Your task to perform on an android device: Go to sound settings Image 0: 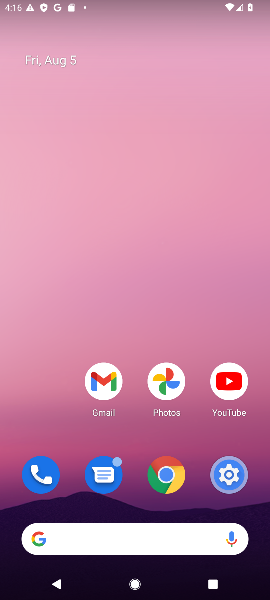
Step 0: click (232, 473)
Your task to perform on an android device: Go to sound settings Image 1: 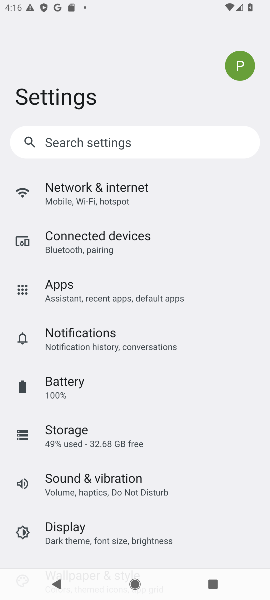
Step 1: click (96, 486)
Your task to perform on an android device: Go to sound settings Image 2: 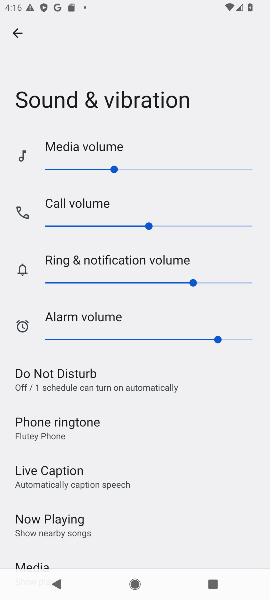
Step 2: task complete